Your task to perform on an android device: Empty the shopping cart on target.com. Add "acer predator" to the cart on target.com, then select checkout. Image 0: 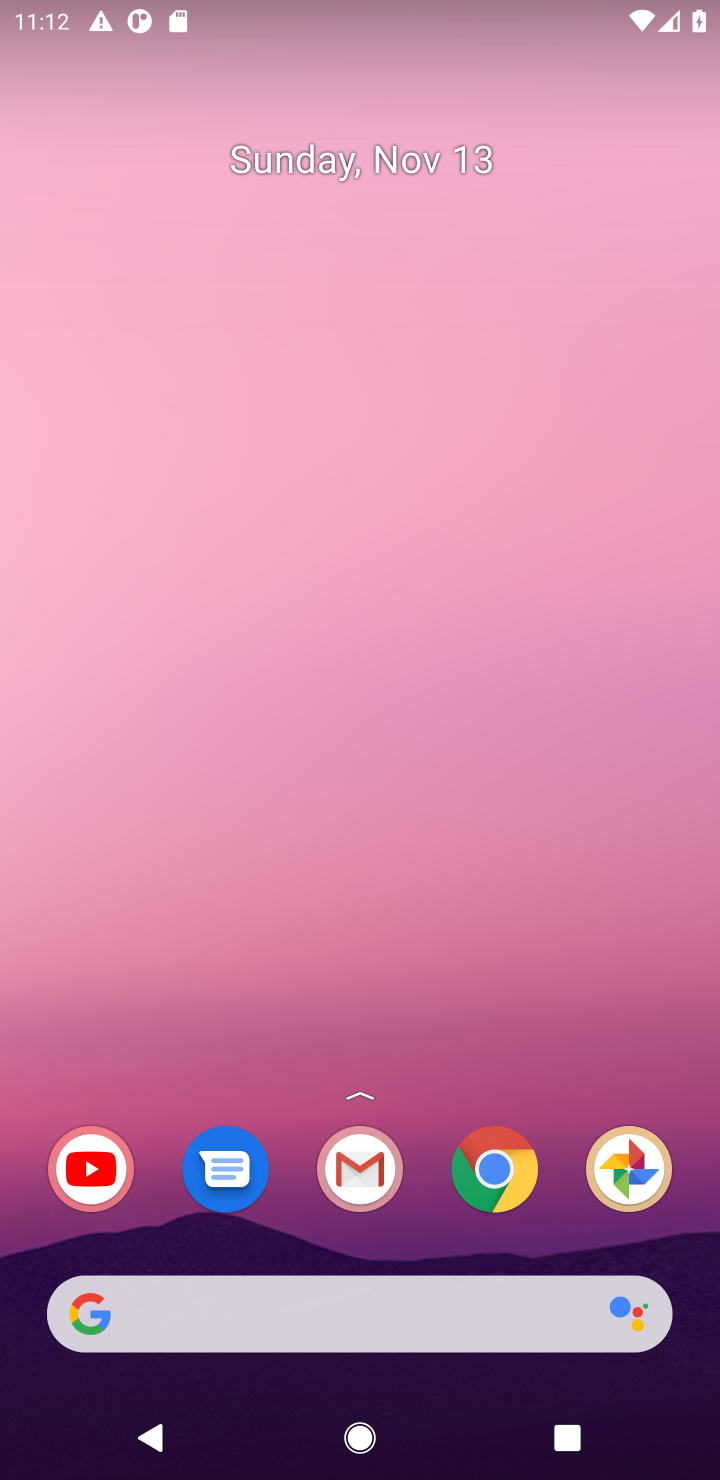
Step 0: drag from (440, 1253) to (462, 179)
Your task to perform on an android device: Empty the shopping cart on target.com. Add "acer predator" to the cart on target.com, then select checkout. Image 1: 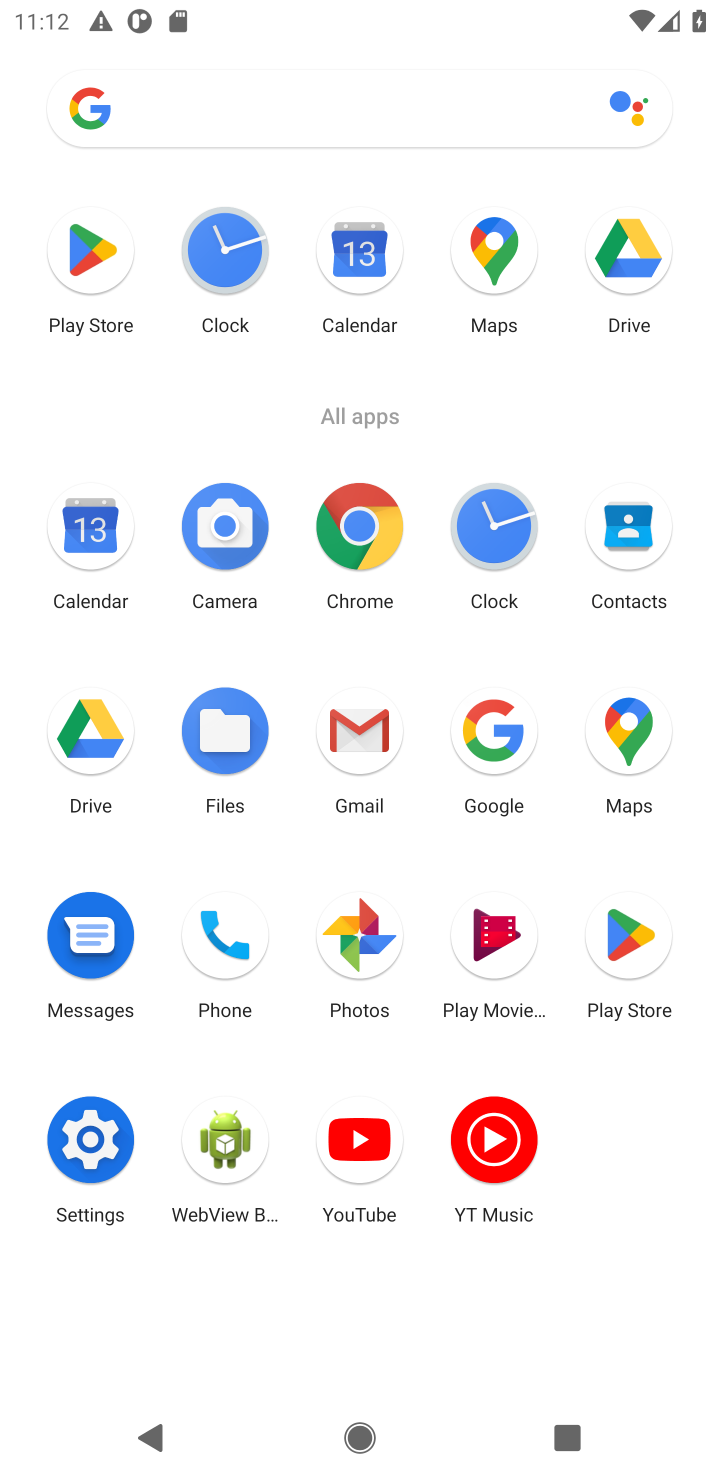
Step 1: click (359, 529)
Your task to perform on an android device: Empty the shopping cart on target.com. Add "acer predator" to the cart on target.com, then select checkout. Image 2: 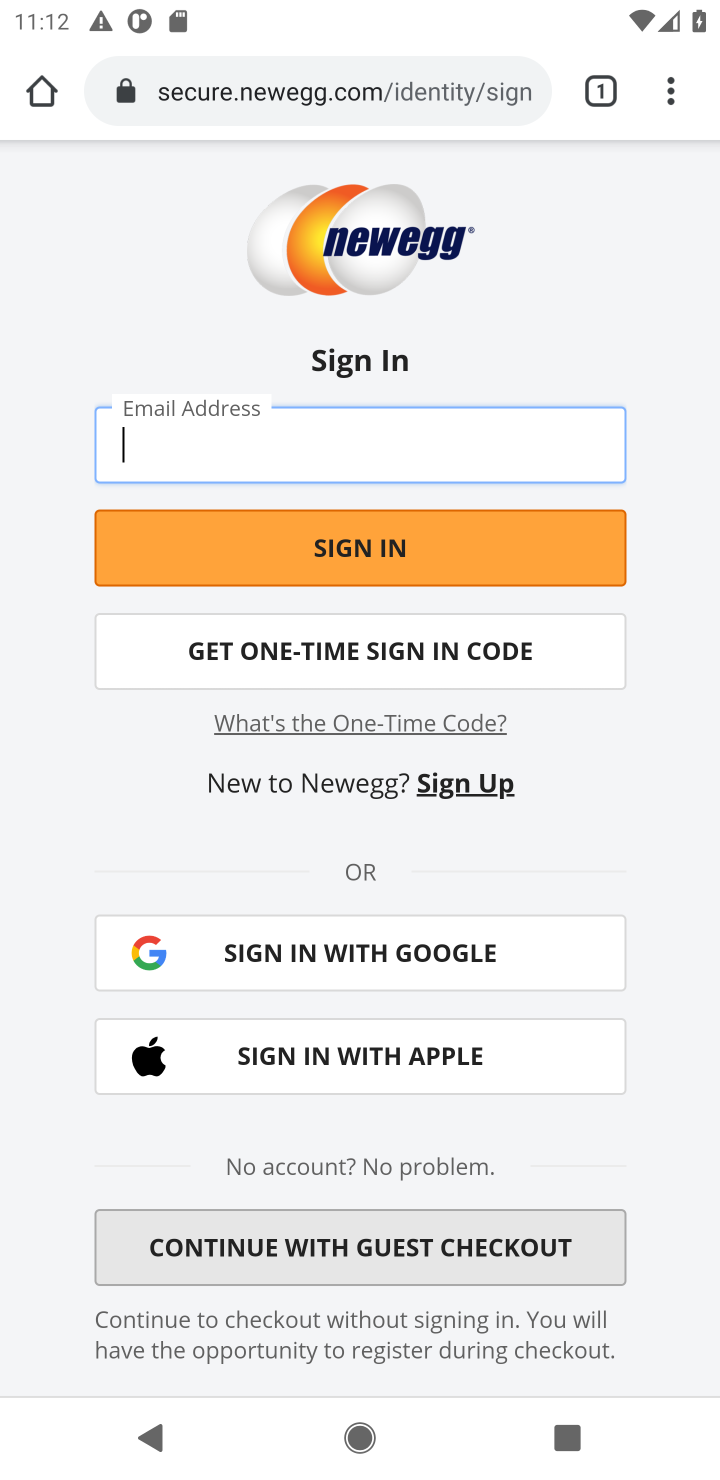
Step 2: click (456, 80)
Your task to perform on an android device: Empty the shopping cart on target.com. Add "acer predator" to the cart on target.com, then select checkout. Image 3: 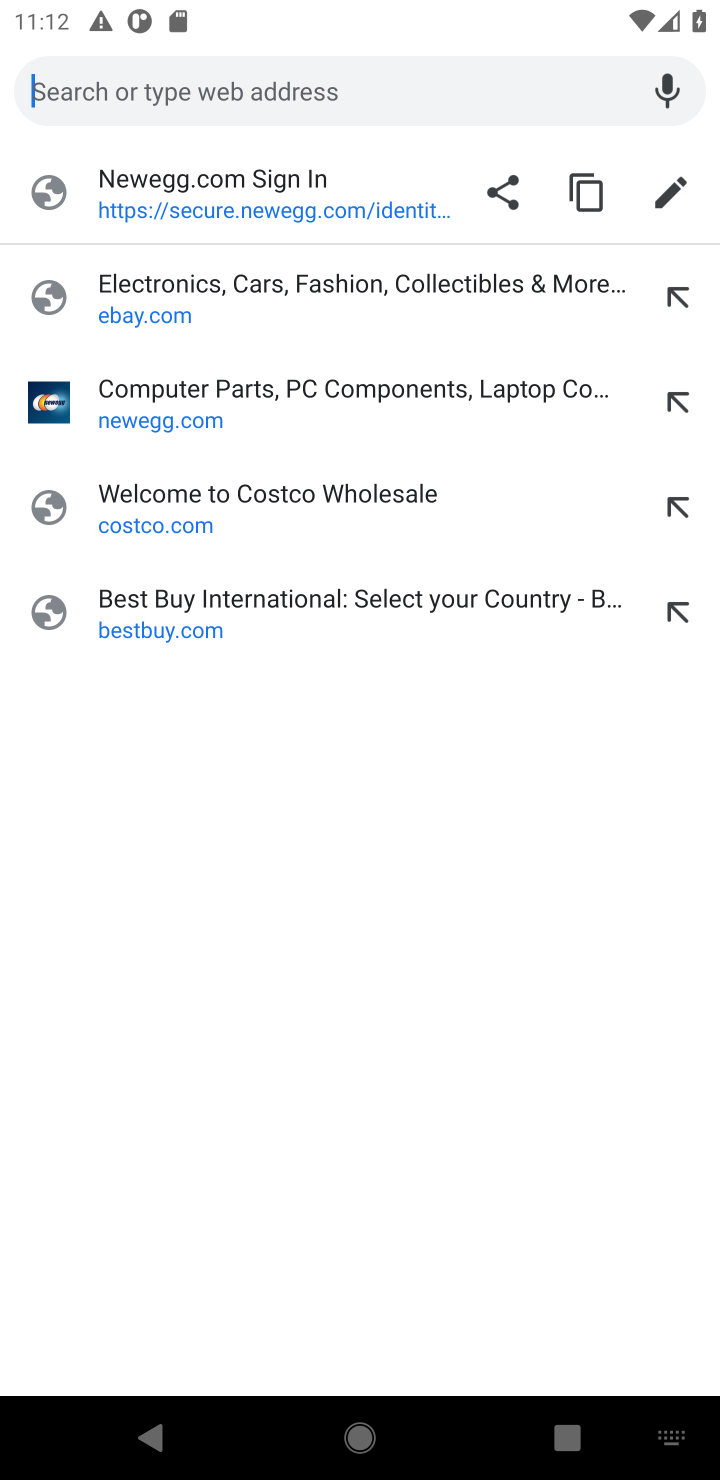
Step 3: type "target.com"
Your task to perform on an android device: Empty the shopping cart on target.com. Add "acer predator" to the cart on target.com, then select checkout. Image 4: 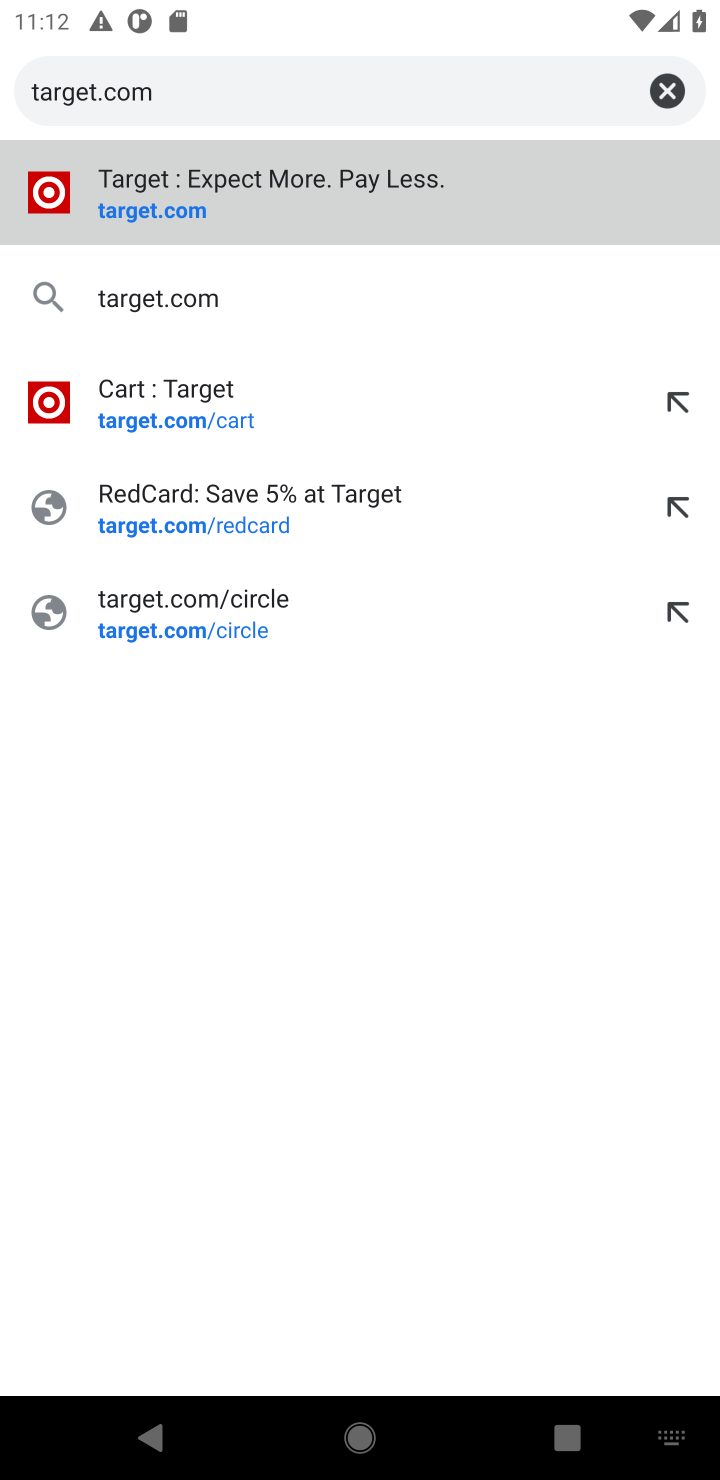
Step 4: press enter
Your task to perform on an android device: Empty the shopping cart on target.com. Add "acer predator" to the cart on target.com, then select checkout. Image 5: 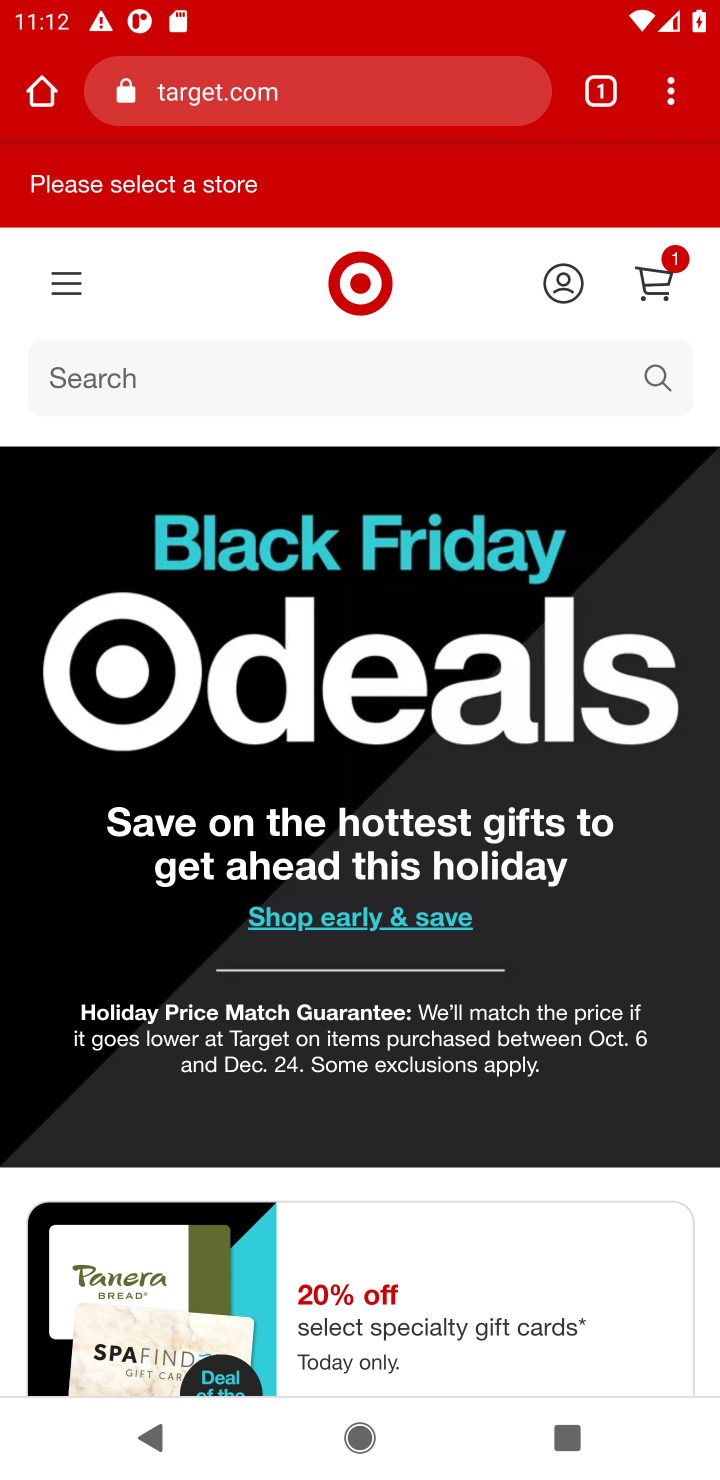
Step 5: click (643, 270)
Your task to perform on an android device: Empty the shopping cart on target.com. Add "acer predator" to the cart on target.com, then select checkout. Image 6: 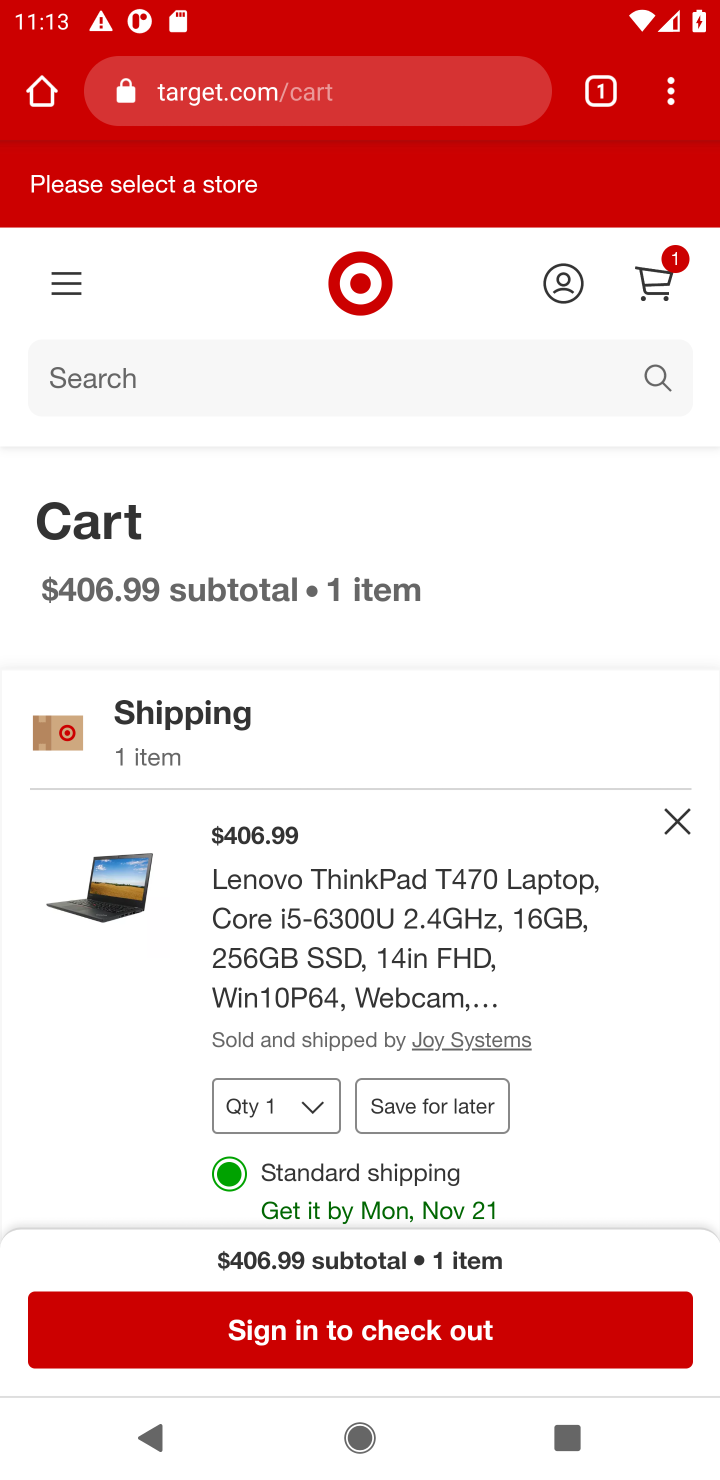
Step 6: click (688, 824)
Your task to perform on an android device: Empty the shopping cart on target.com. Add "acer predator" to the cart on target.com, then select checkout. Image 7: 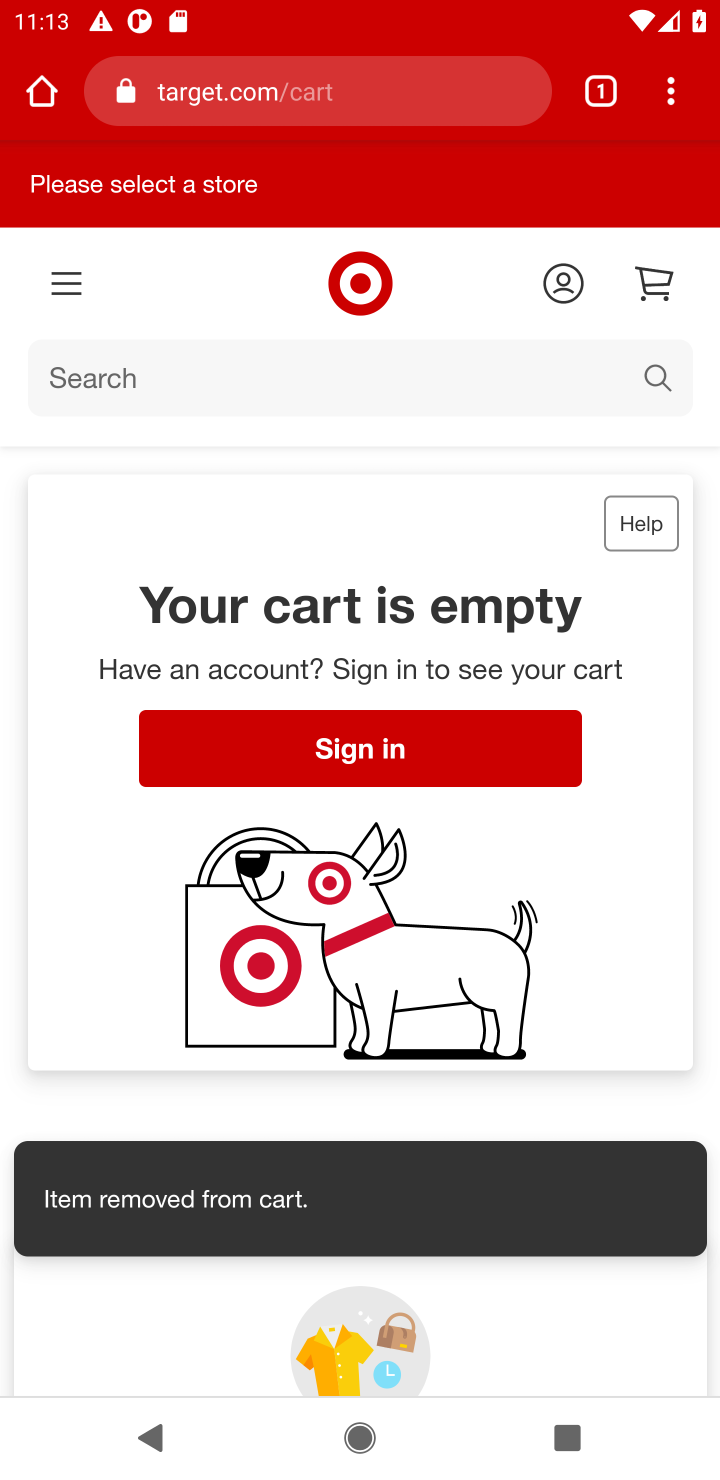
Step 7: click (400, 378)
Your task to perform on an android device: Empty the shopping cart on target.com. Add "acer predator" to the cart on target.com, then select checkout. Image 8: 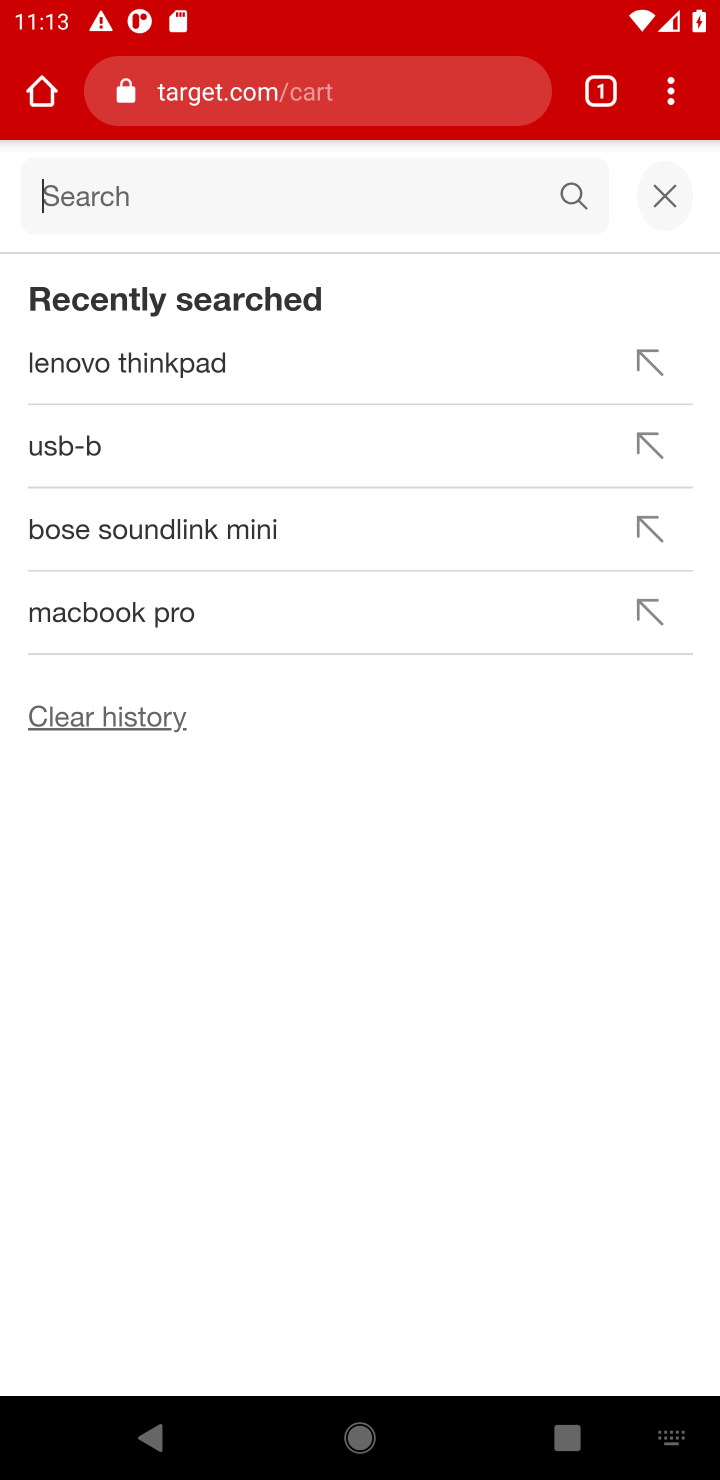
Step 8: type "acer predator"
Your task to perform on an android device: Empty the shopping cart on target.com. Add "acer predator" to the cart on target.com, then select checkout. Image 9: 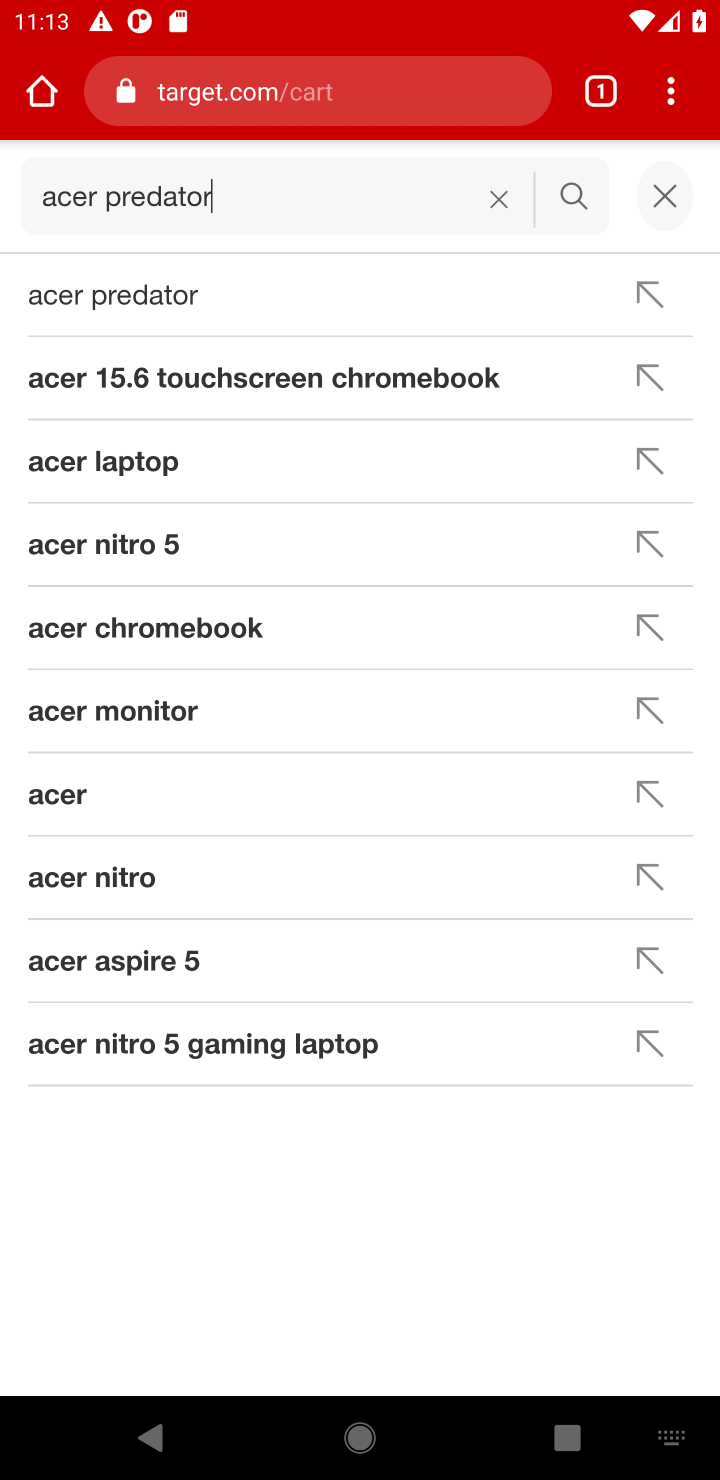
Step 9: press enter
Your task to perform on an android device: Empty the shopping cart on target.com. Add "acer predator" to the cart on target.com, then select checkout. Image 10: 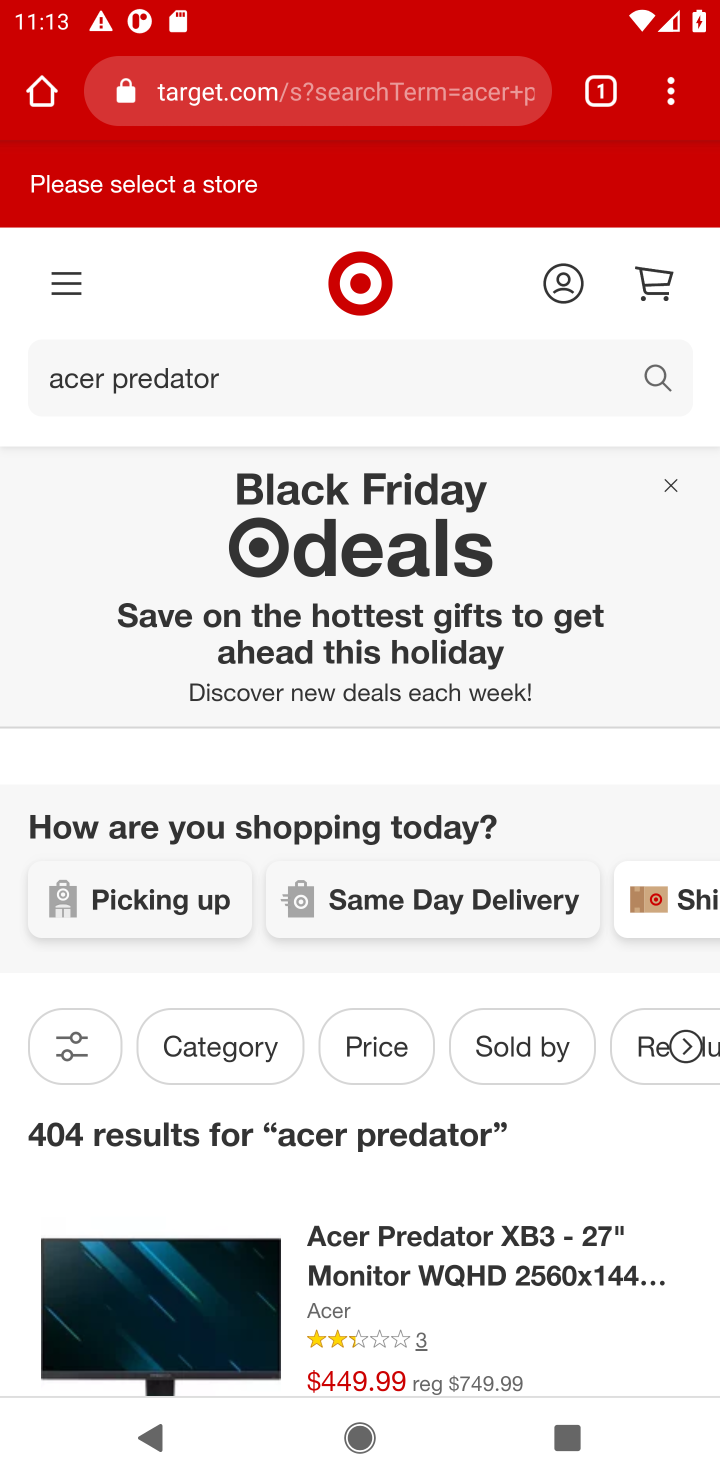
Step 10: drag from (463, 1277) to (393, 501)
Your task to perform on an android device: Empty the shopping cart on target.com. Add "acer predator" to the cart on target.com, then select checkout. Image 11: 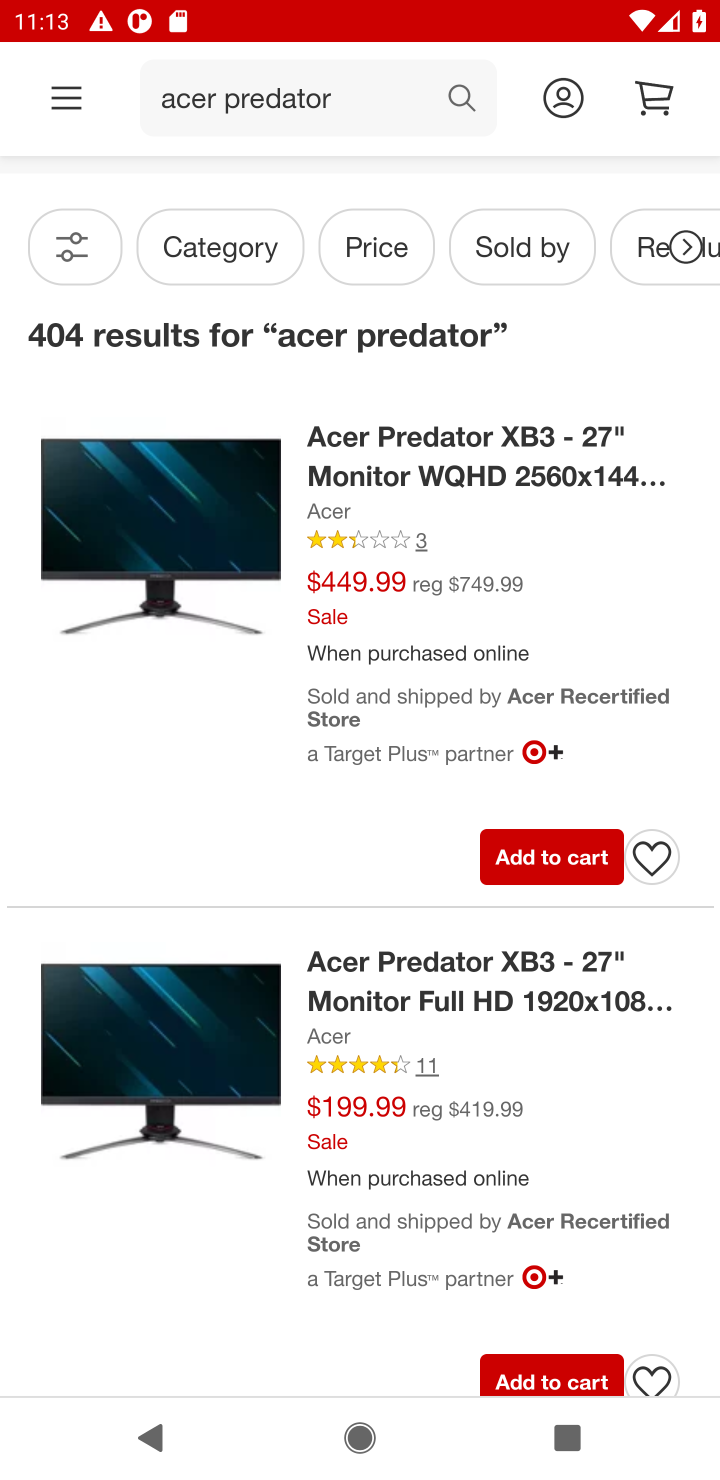
Step 11: click (530, 866)
Your task to perform on an android device: Empty the shopping cart on target.com. Add "acer predator" to the cart on target.com, then select checkout. Image 12: 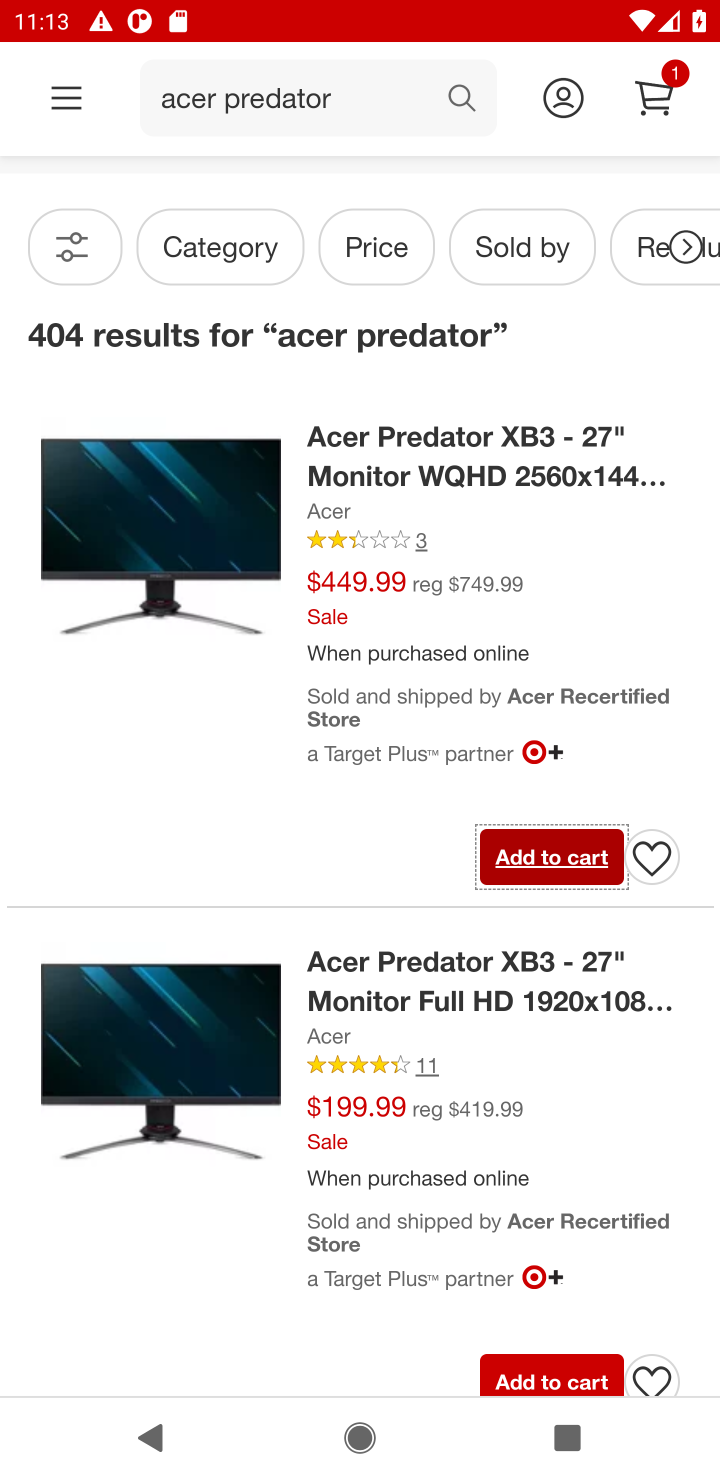
Step 12: click (668, 105)
Your task to perform on an android device: Empty the shopping cart on target.com. Add "acer predator" to the cart on target.com, then select checkout. Image 13: 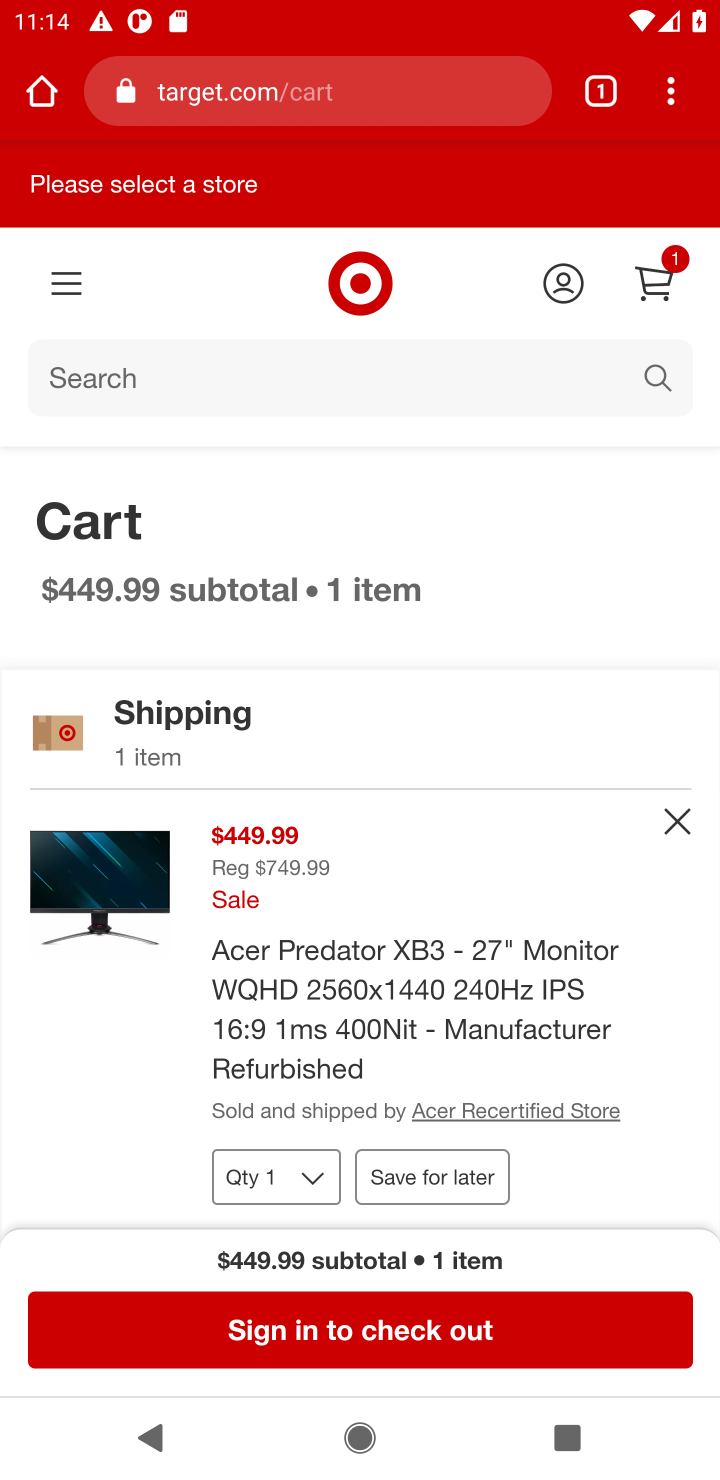
Step 13: click (462, 1317)
Your task to perform on an android device: Empty the shopping cart on target.com. Add "acer predator" to the cart on target.com, then select checkout. Image 14: 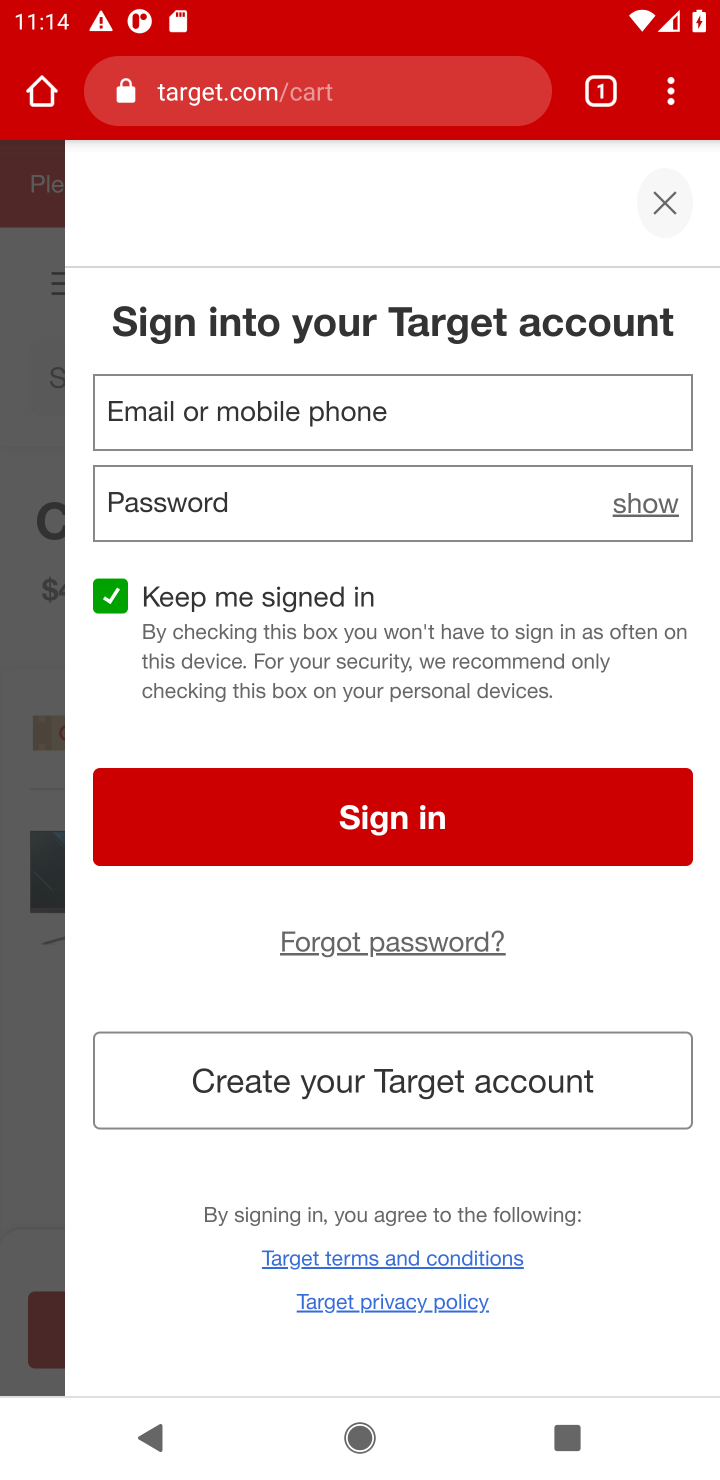
Step 14: task complete